Your task to perform on an android device: turn off priority inbox in the gmail app Image 0: 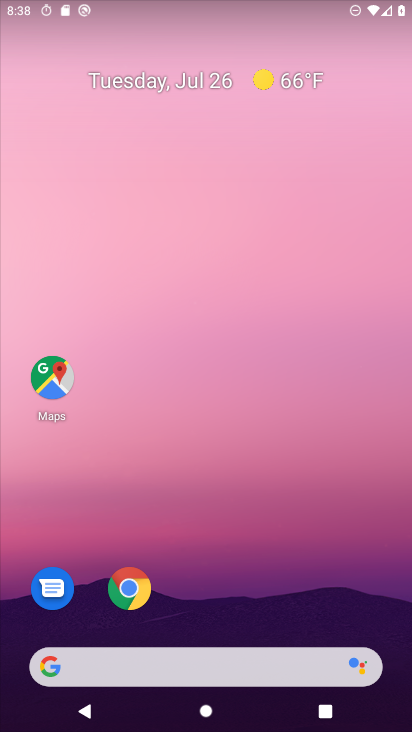
Step 0: drag from (227, 718) to (227, 198)
Your task to perform on an android device: turn off priority inbox in the gmail app Image 1: 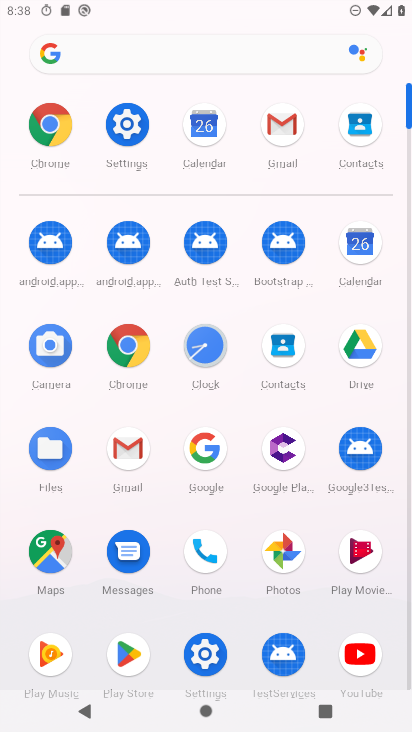
Step 1: click (135, 445)
Your task to perform on an android device: turn off priority inbox in the gmail app Image 2: 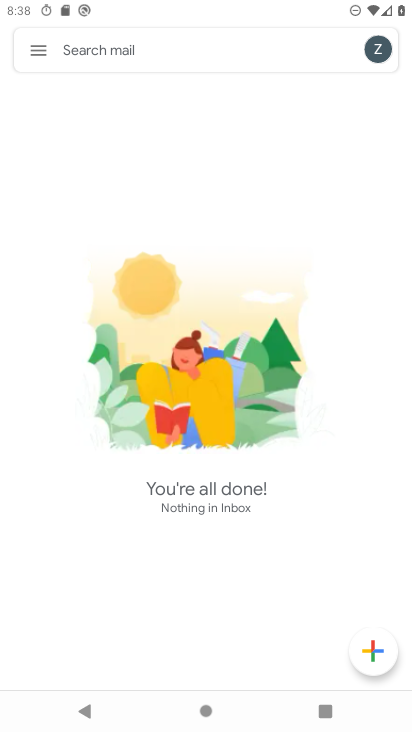
Step 2: click (45, 47)
Your task to perform on an android device: turn off priority inbox in the gmail app Image 3: 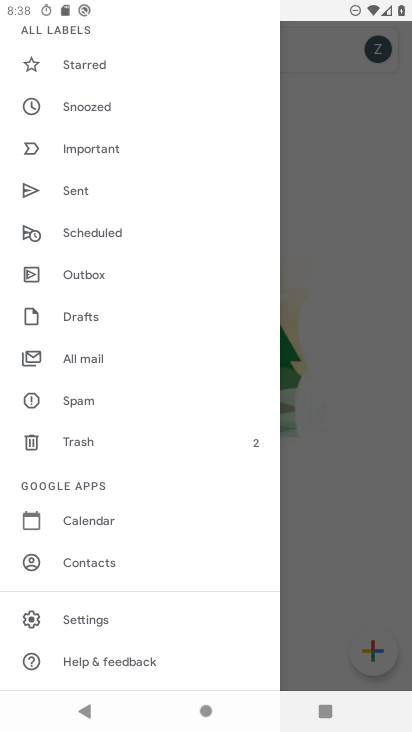
Step 3: click (98, 619)
Your task to perform on an android device: turn off priority inbox in the gmail app Image 4: 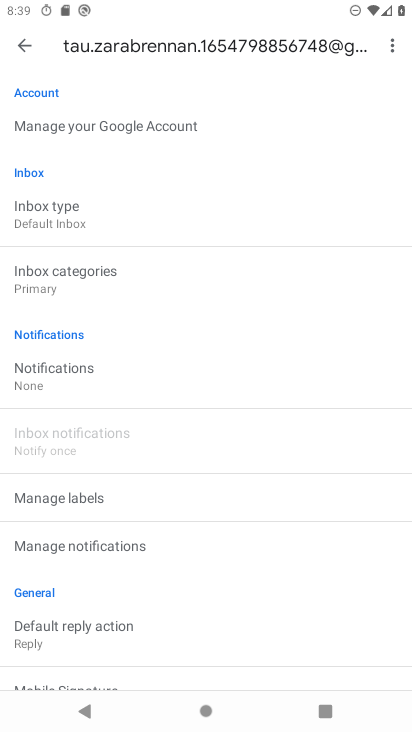
Step 4: task complete